Your task to perform on an android device: Open Chrome and go to settings Image 0: 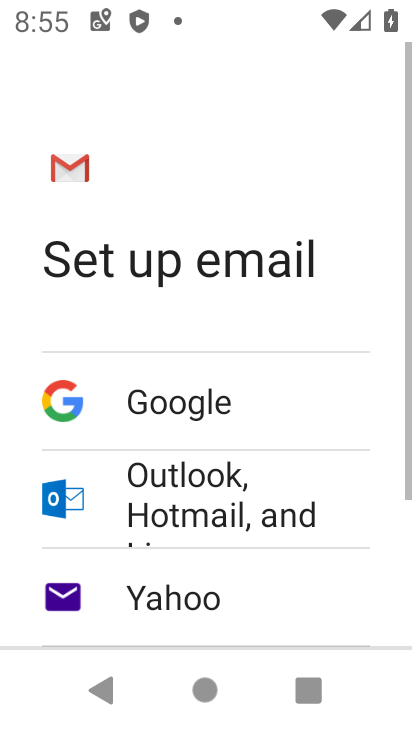
Step 0: press home button
Your task to perform on an android device: Open Chrome and go to settings Image 1: 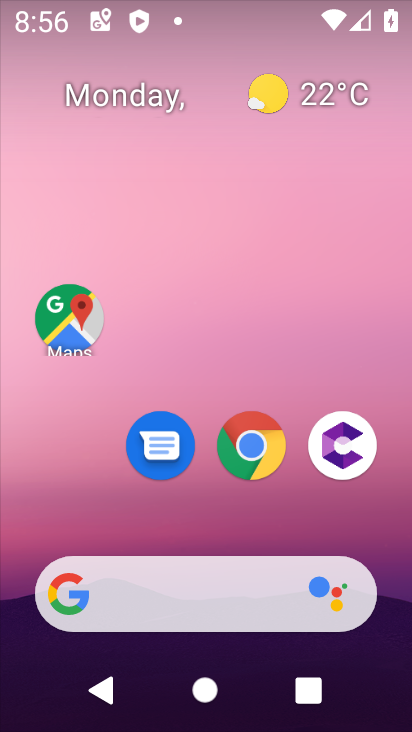
Step 1: click (244, 457)
Your task to perform on an android device: Open Chrome and go to settings Image 2: 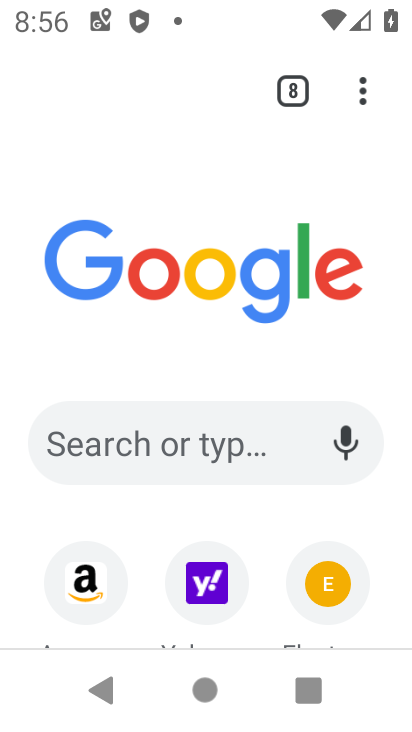
Step 2: click (353, 75)
Your task to perform on an android device: Open Chrome and go to settings Image 3: 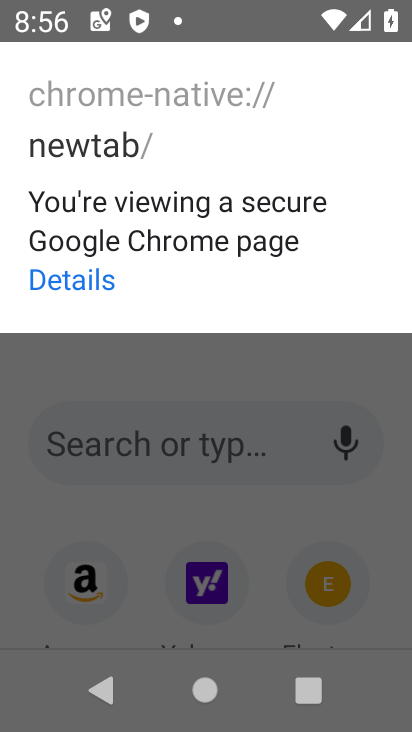
Step 3: drag from (355, 80) to (409, 280)
Your task to perform on an android device: Open Chrome and go to settings Image 4: 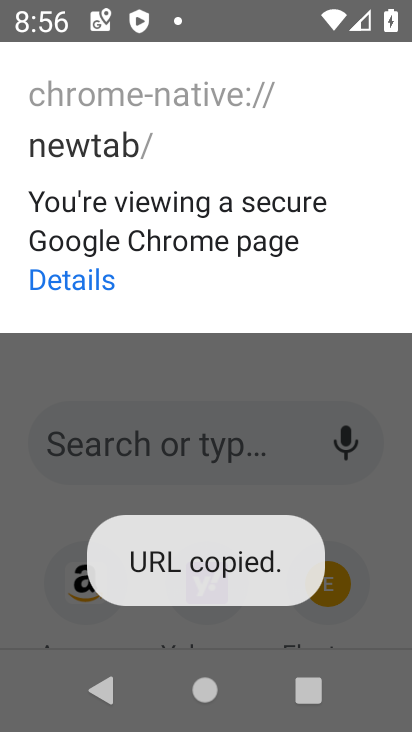
Step 4: click (231, 343)
Your task to perform on an android device: Open Chrome and go to settings Image 5: 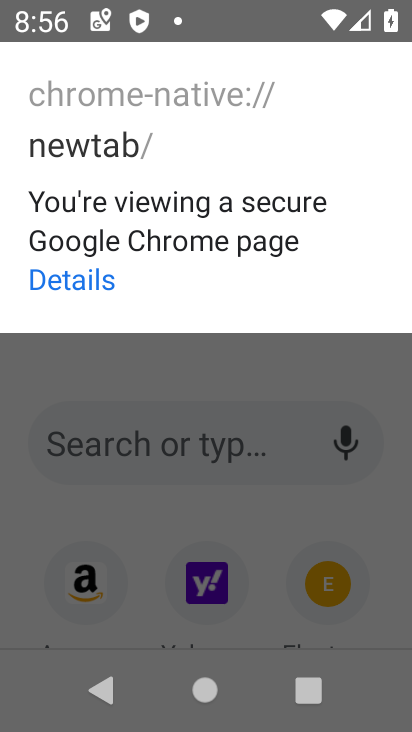
Step 5: click (225, 350)
Your task to perform on an android device: Open Chrome and go to settings Image 6: 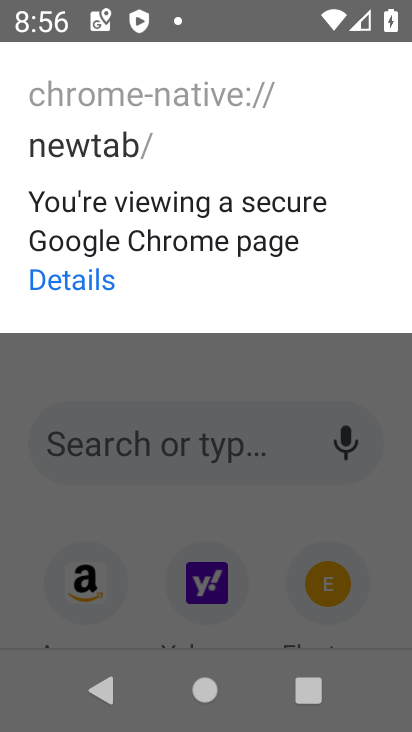
Step 6: click (208, 350)
Your task to perform on an android device: Open Chrome and go to settings Image 7: 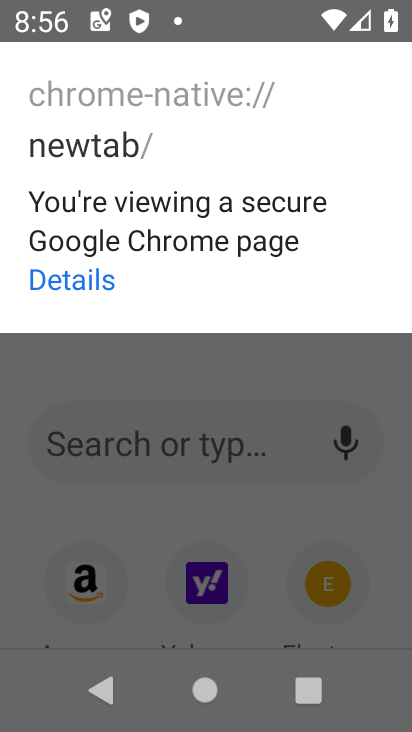
Step 7: click (230, 360)
Your task to perform on an android device: Open Chrome and go to settings Image 8: 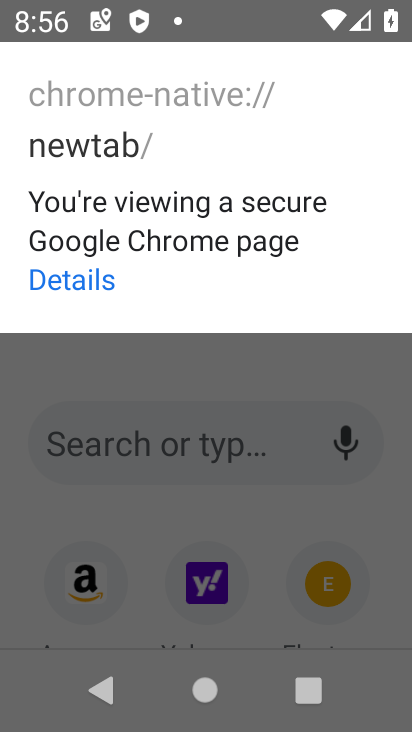
Step 8: click (237, 358)
Your task to perform on an android device: Open Chrome and go to settings Image 9: 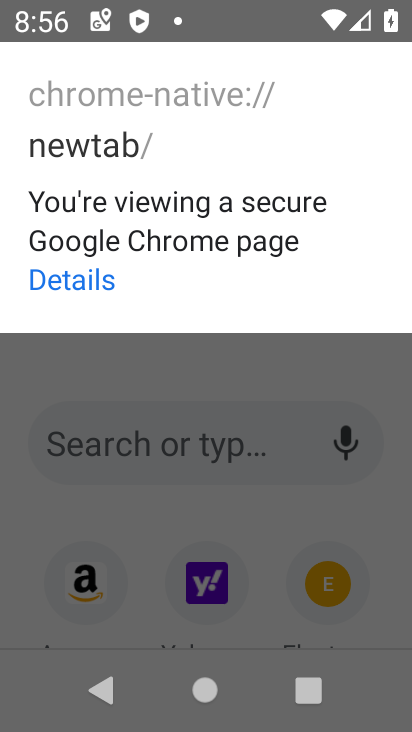
Step 9: click (237, 358)
Your task to perform on an android device: Open Chrome and go to settings Image 10: 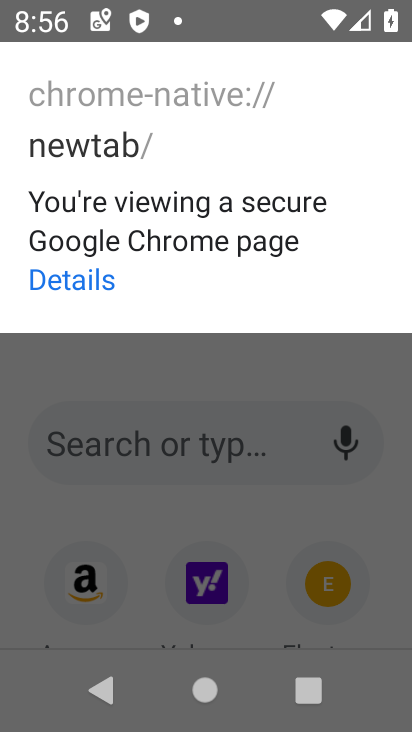
Step 10: click (41, 364)
Your task to perform on an android device: Open Chrome and go to settings Image 11: 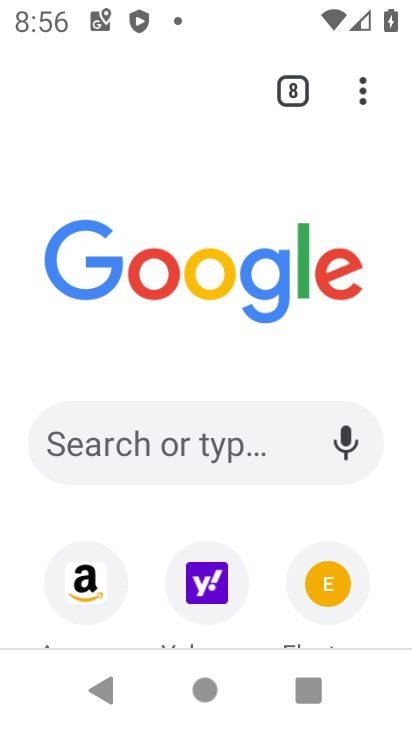
Step 11: task complete